Your task to perform on an android device: turn on airplane mode Image 0: 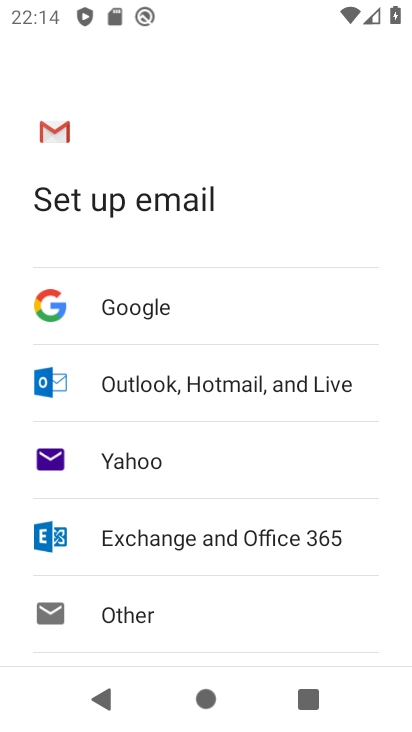
Step 0: press home button
Your task to perform on an android device: turn on airplane mode Image 1: 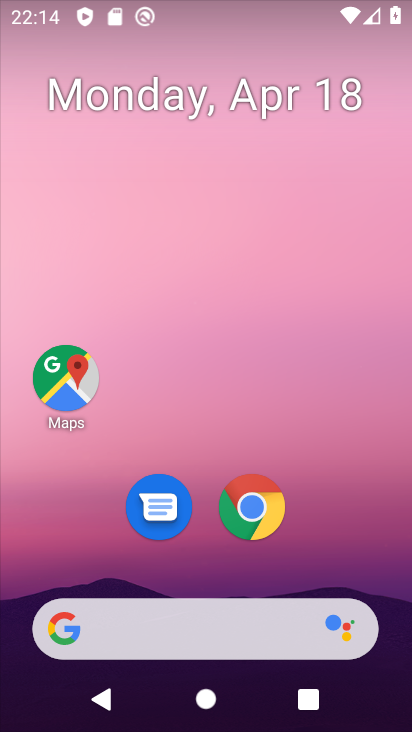
Step 1: drag from (321, 496) to (351, 87)
Your task to perform on an android device: turn on airplane mode Image 2: 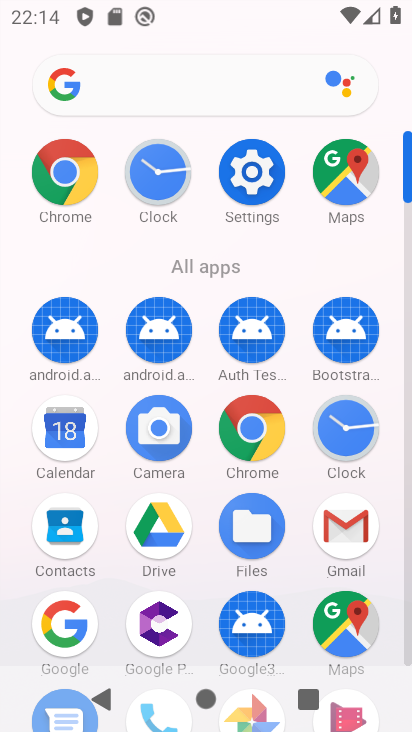
Step 2: click (254, 168)
Your task to perform on an android device: turn on airplane mode Image 3: 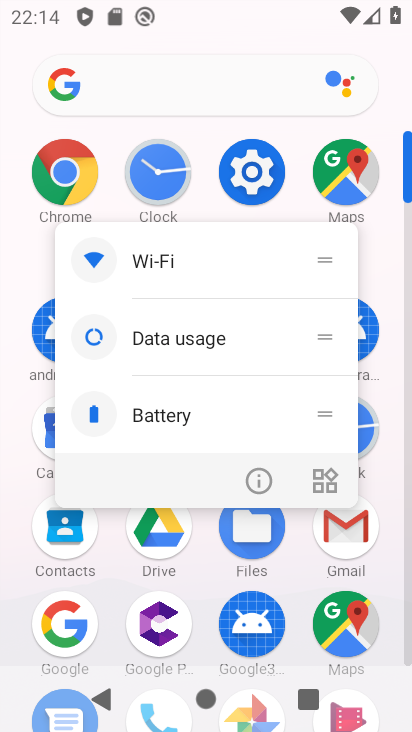
Step 3: click (262, 174)
Your task to perform on an android device: turn on airplane mode Image 4: 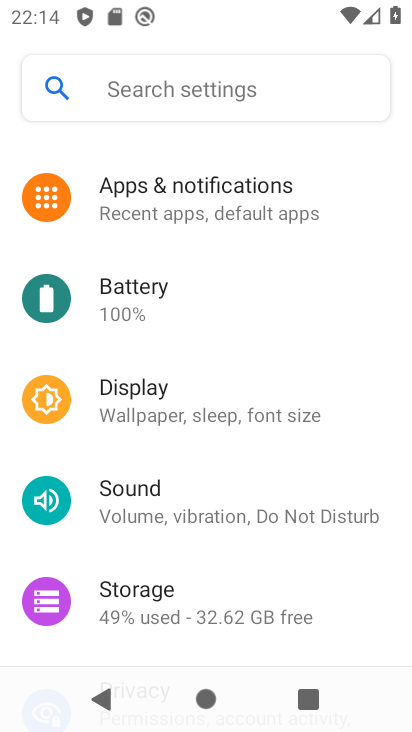
Step 4: drag from (274, 305) to (235, 559)
Your task to perform on an android device: turn on airplane mode Image 5: 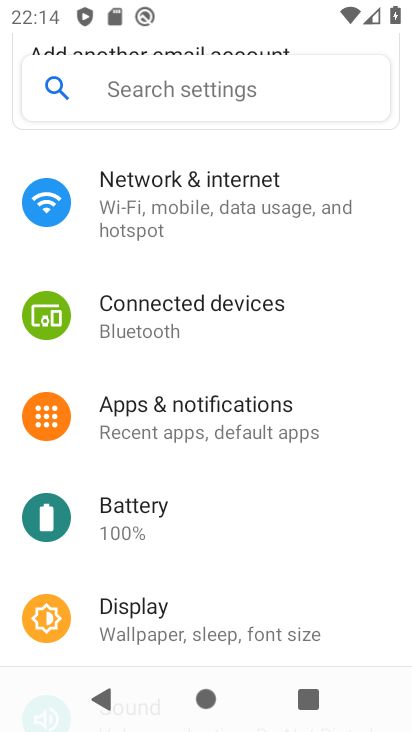
Step 5: click (269, 205)
Your task to perform on an android device: turn on airplane mode Image 6: 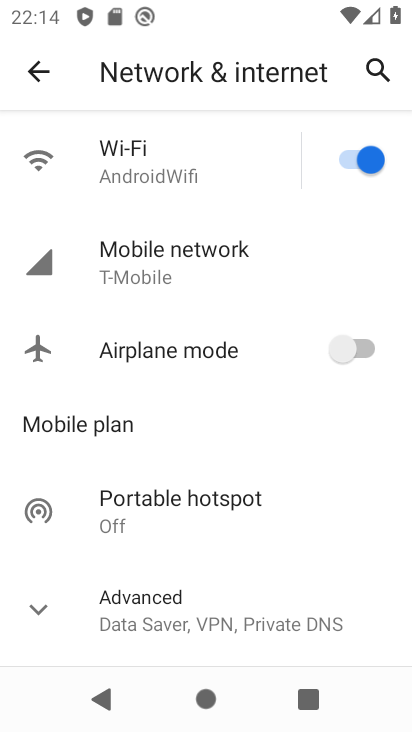
Step 6: click (361, 339)
Your task to perform on an android device: turn on airplane mode Image 7: 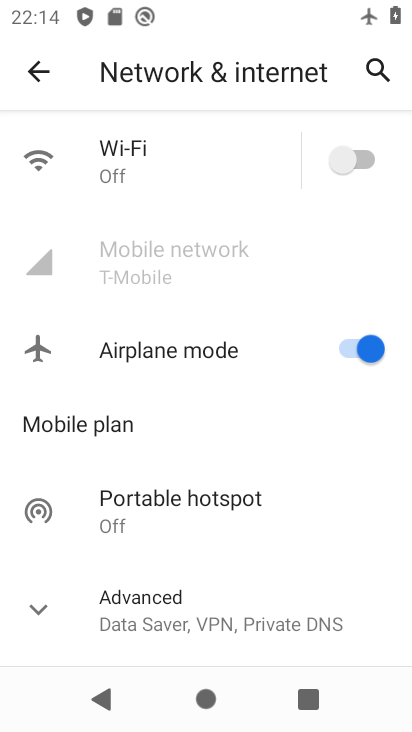
Step 7: task complete